Your task to perform on an android device: Open Reddit.com Image 0: 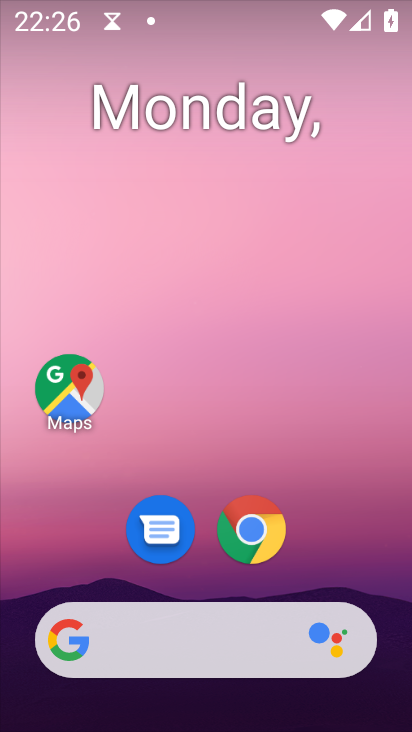
Step 0: click (248, 529)
Your task to perform on an android device: Open Reddit.com Image 1: 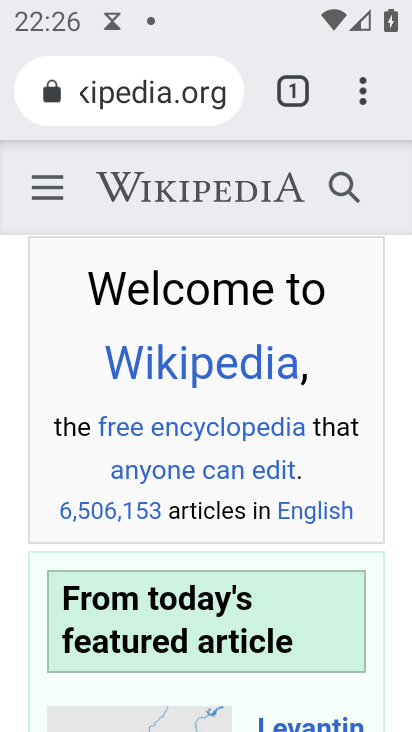
Step 1: click (208, 86)
Your task to perform on an android device: Open Reddit.com Image 2: 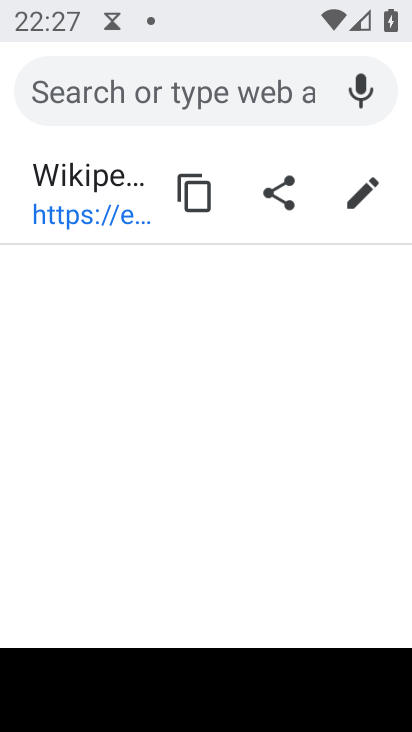
Step 2: type "Reddit.com"
Your task to perform on an android device: Open Reddit.com Image 3: 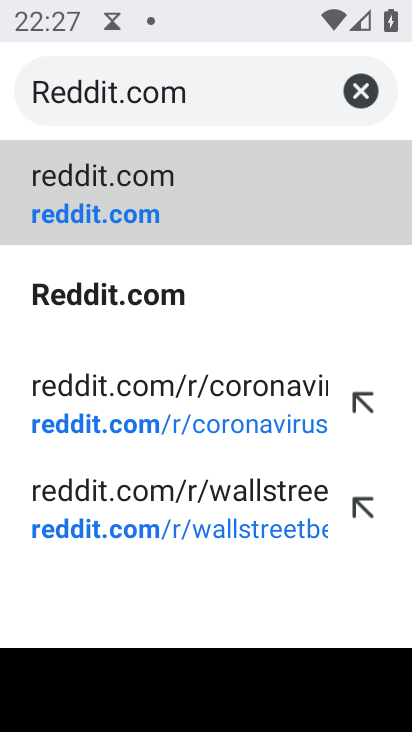
Step 3: click (130, 309)
Your task to perform on an android device: Open Reddit.com Image 4: 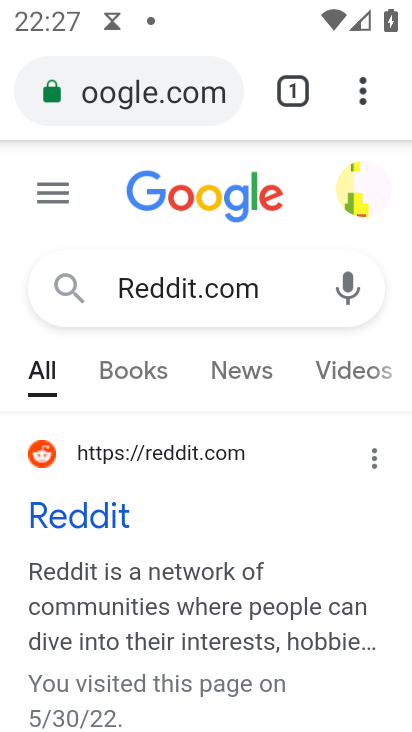
Step 4: click (83, 512)
Your task to perform on an android device: Open Reddit.com Image 5: 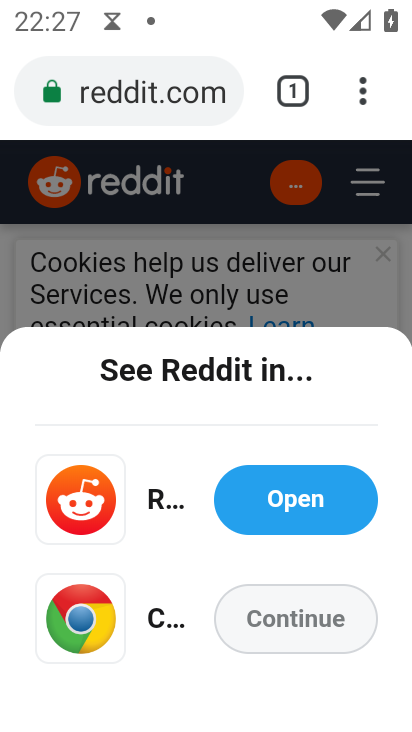
Step 5: click (301, 614)
Your task to perform on an android device: Open Reddit.com Image 6: 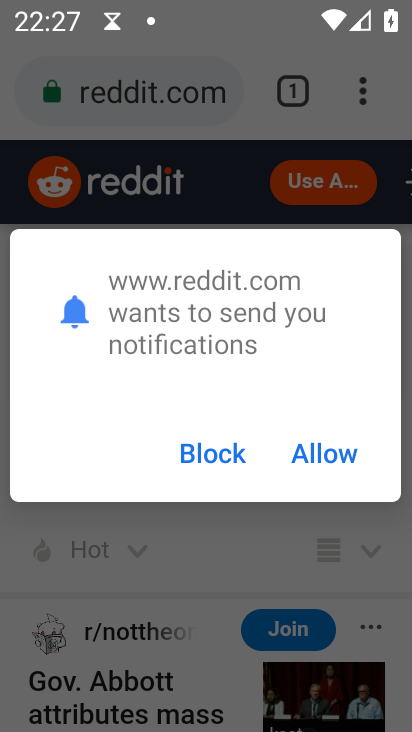
Step 6: click (323, 448)
Your task to perform on an android device: Open Reddit.com Image 7: 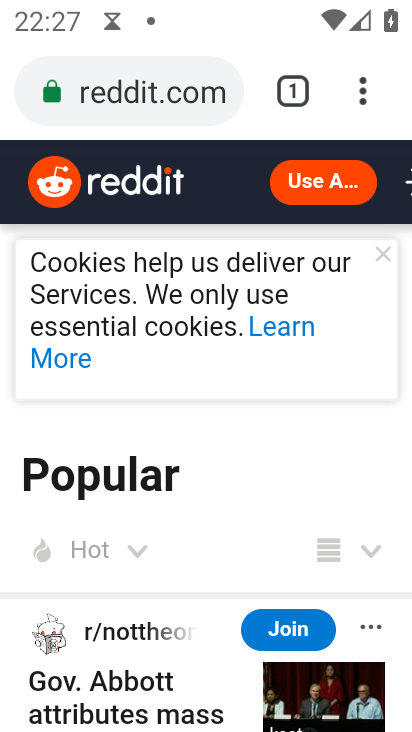
Step 7: task complete